Your task to perform on an android device: turn off improve location accuracy Image 0: 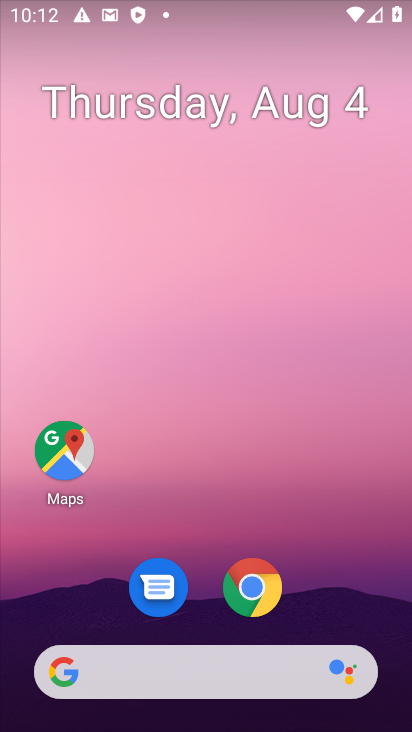
Step 0: drag from (246, 638) to (273, 92)
Your task to perform on an android device: turn off improve location accuracy Image 1: 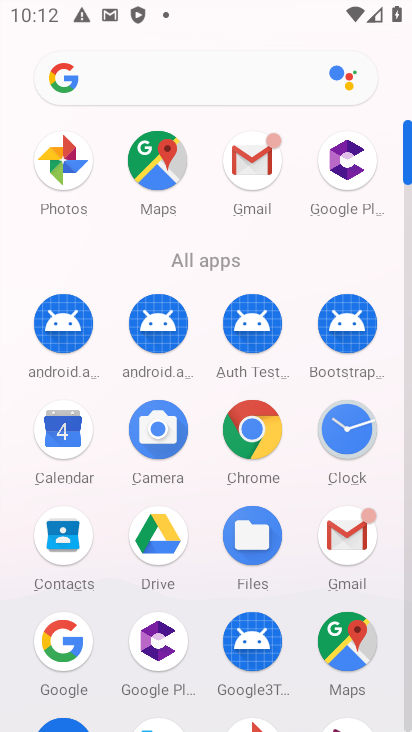
Step 1: drag from (263, 622) to (318, 170)
Your task to perform on an android device: turn off improve location accuracy Image 2: 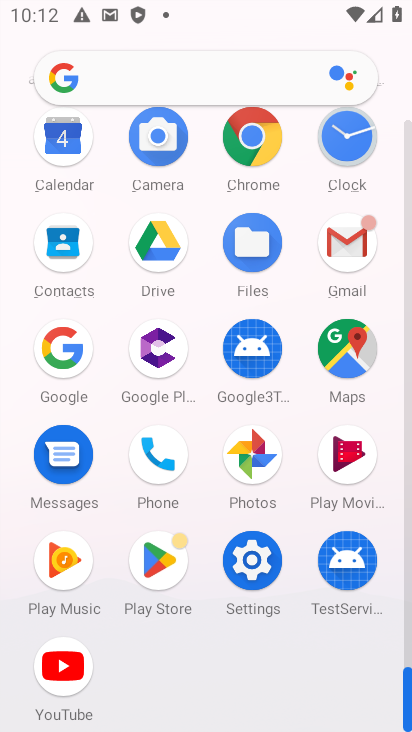
Step 2: click (256, 566)
Your task to perform on an android device: turn off improve location accuracy Image 3: 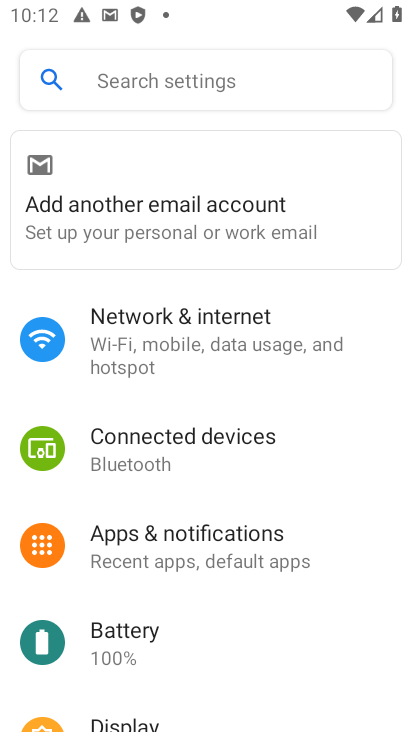
Step 3: drag from (200, 606) to (246, 230)
Your task to perform on an android device: turn off improve location accuracy Image 4: 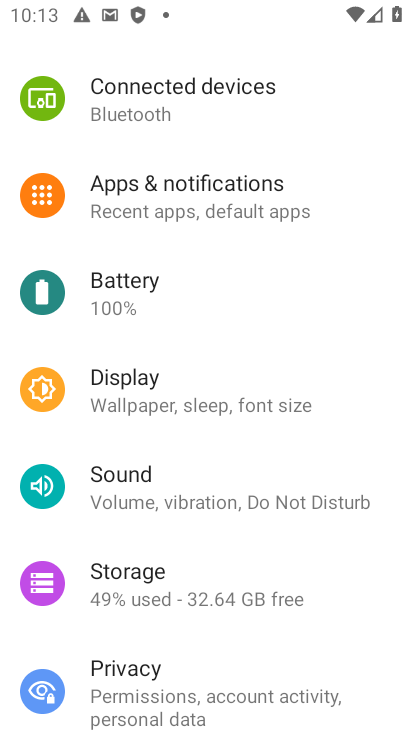
Step 4: drag from (170, 620) to (222, 192)
Your task to perform on an android device: turn off improve location accuracy Image 5: 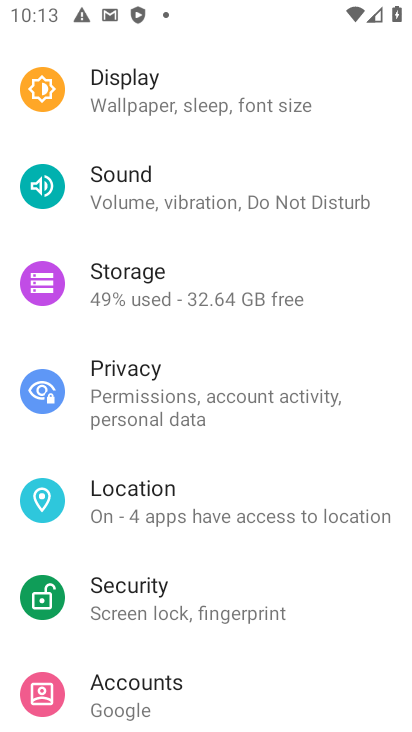
Step 5: click (165, 495)
Your task to perform on an android device: turn off improve location accuracy Image 6: 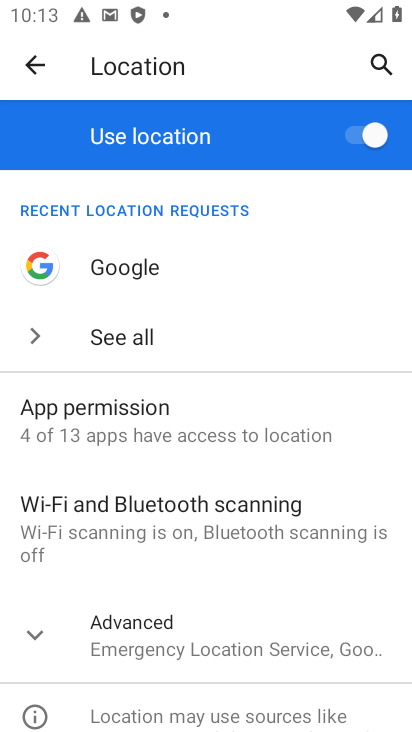
Step 6: click (122, 634)
Your task to perform on an android device: turn off improve location accuracy Image 7: 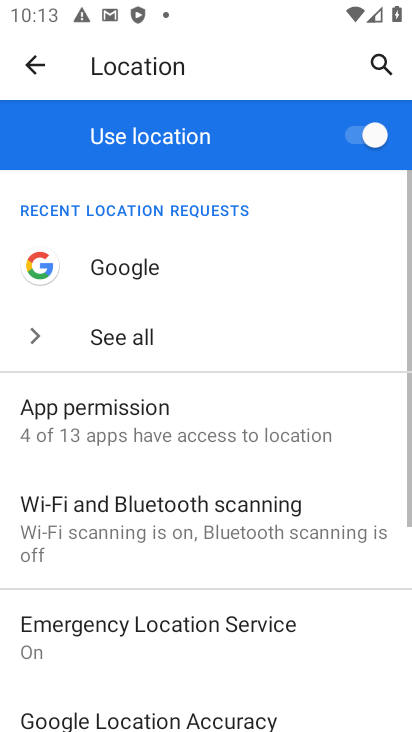
Step 7: drag from (198, 676) to (227, 333)
Your task to perform on an android device: turn off improve location accuracy Image 8: 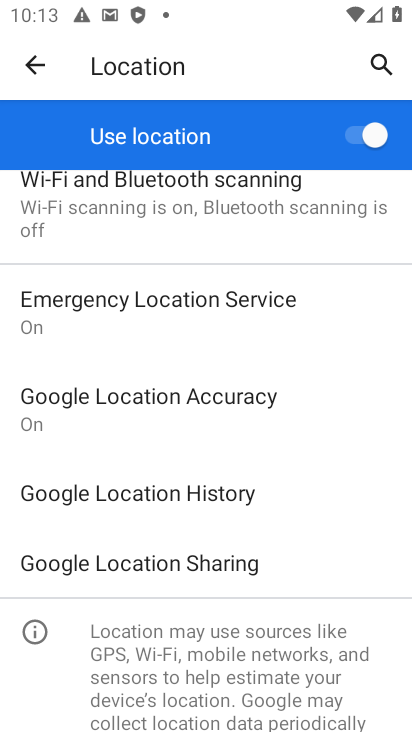
Step 8: click (229, 398)
Your task to perform on an android device: turn off improve location accuracy Image 9: 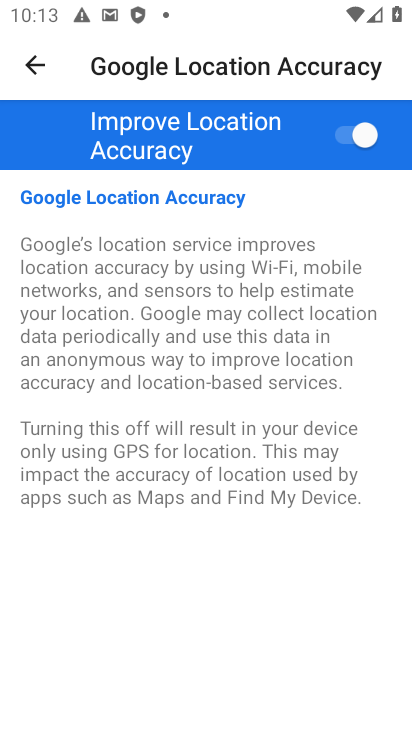
Step 9: click (367, 129)
Your task to perform on an android device: turn off improve location accuracy Image 10: 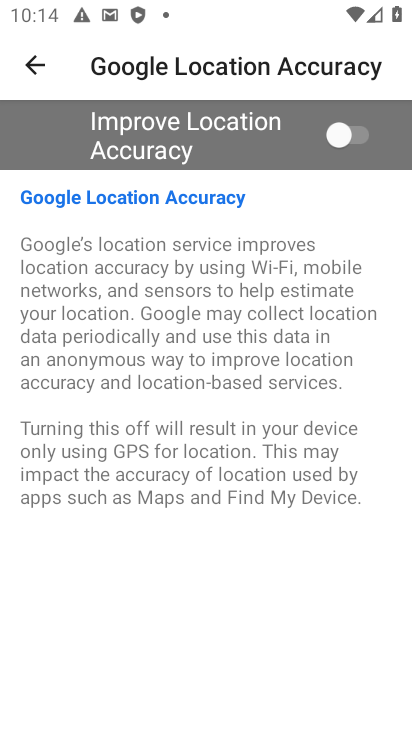
Step 10: task complete